Your task to perform on an android device: Clear the cart on ebay. Add "razer blade" to the cart on ebay Image 0: 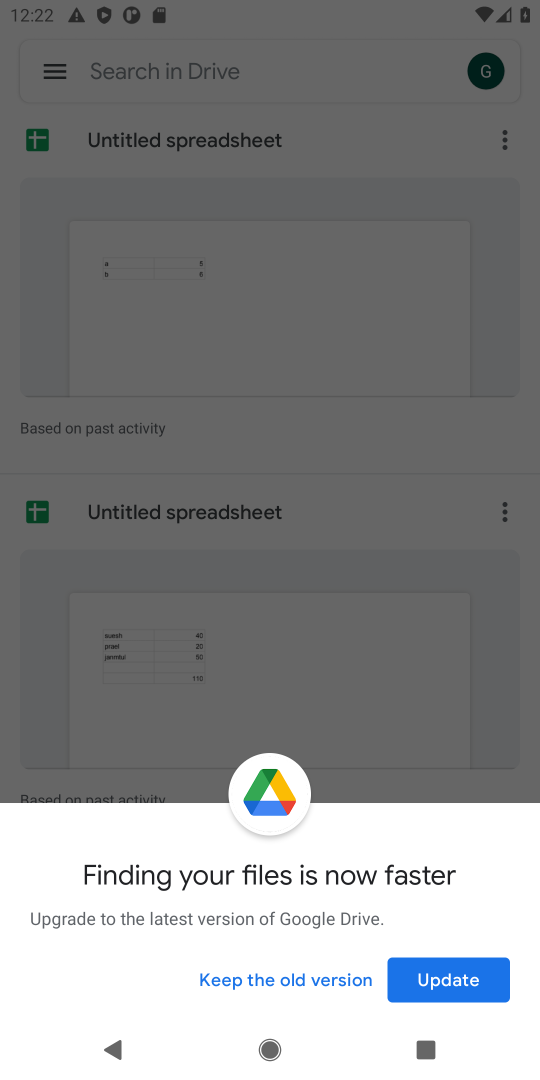
Step 0: press home button
Your task to perform on an android device: Clear the cart on ebay. Add "razer blade" to the cart on ebay Image 1: 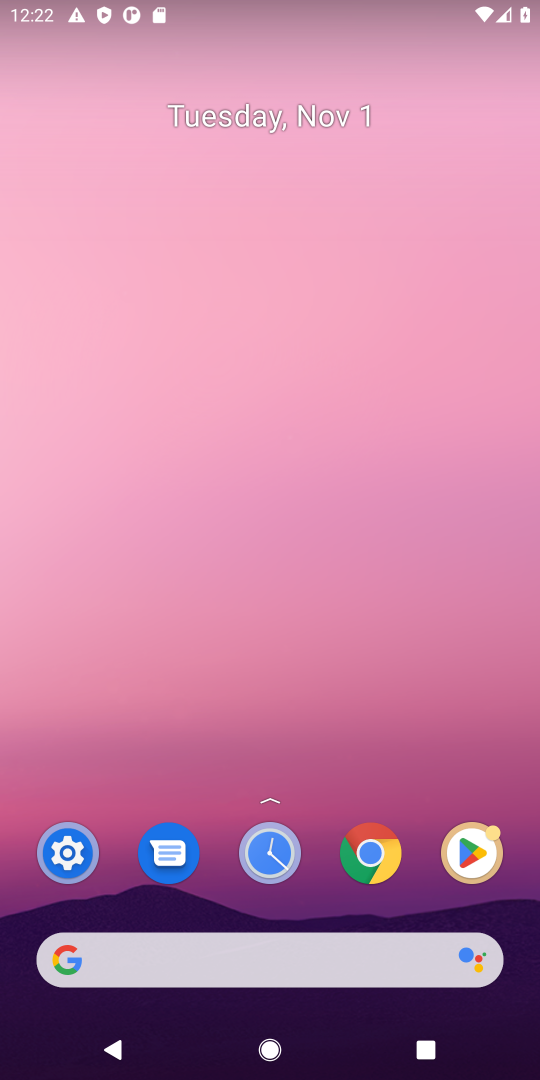
Step 1: click (216, 951)
Your task to perform on an android device: Clear the cart on ebay. Add "razer blade" to the cart on ebay Image 2: 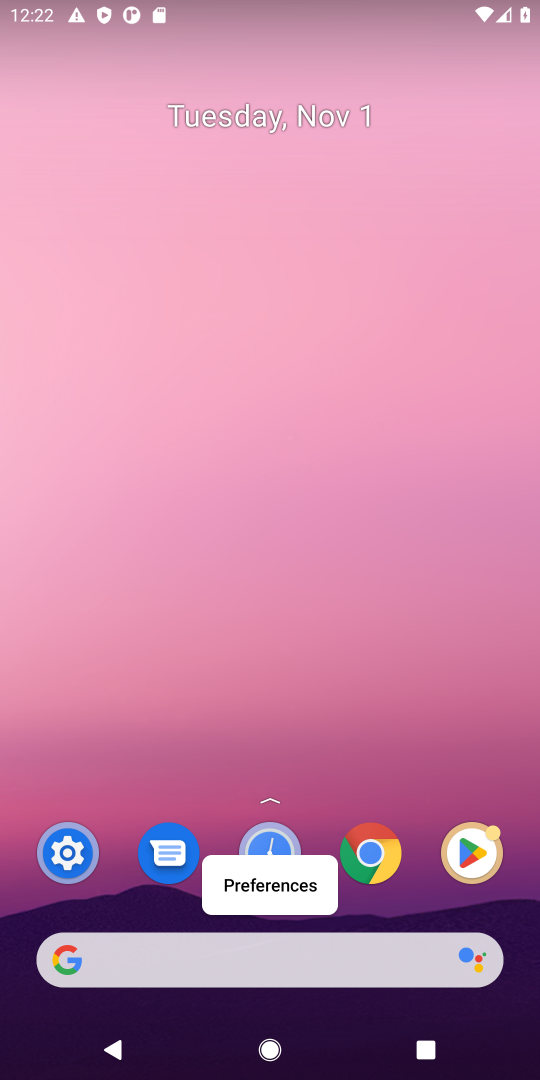
Step 2: click (216, 951)
Your task to perform on an android device: Clear the cart on ebay. Add "razer blade" to the cart on ebay Image 3: 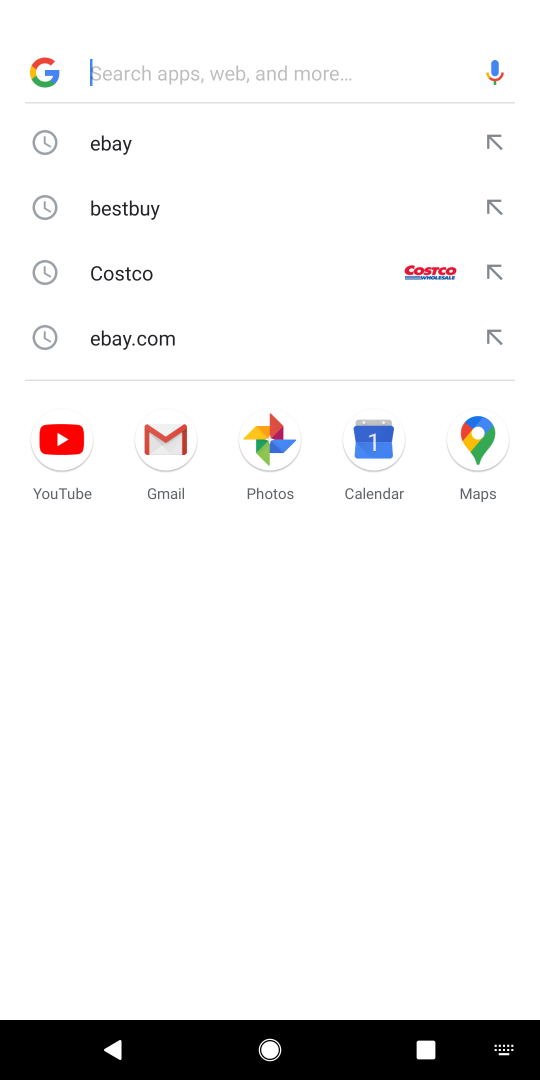
Step 3: click (111, 156)
Your task to perform on an android device: Clear the cart on ebay. Add "razer blade" to the cart on ebay Image 4: 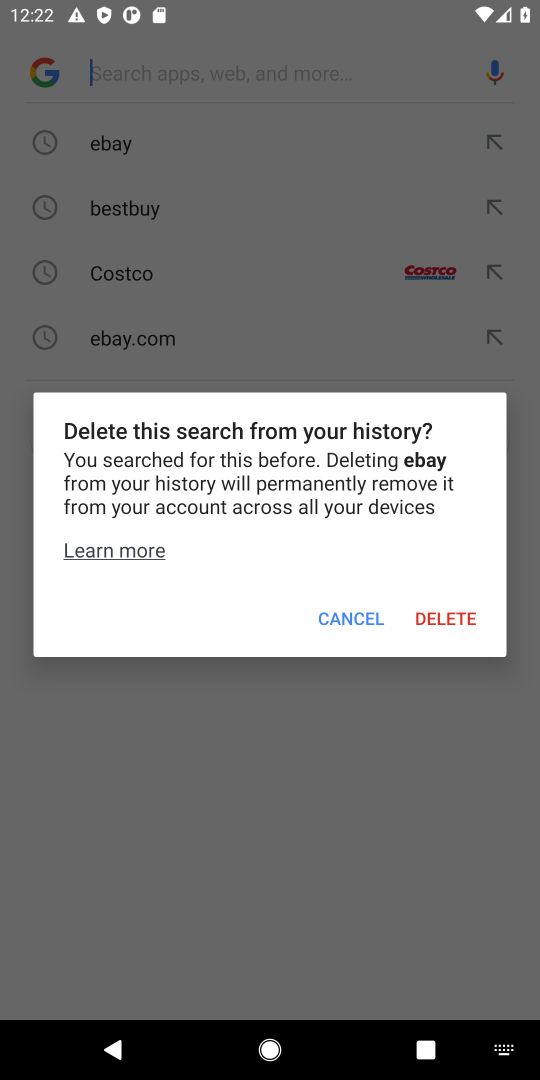
Step 4: click (359, 604)
Your task to perform on an android device: Clear the cart on ebay. Add "razer blade" to the cart on ebay Image 5: 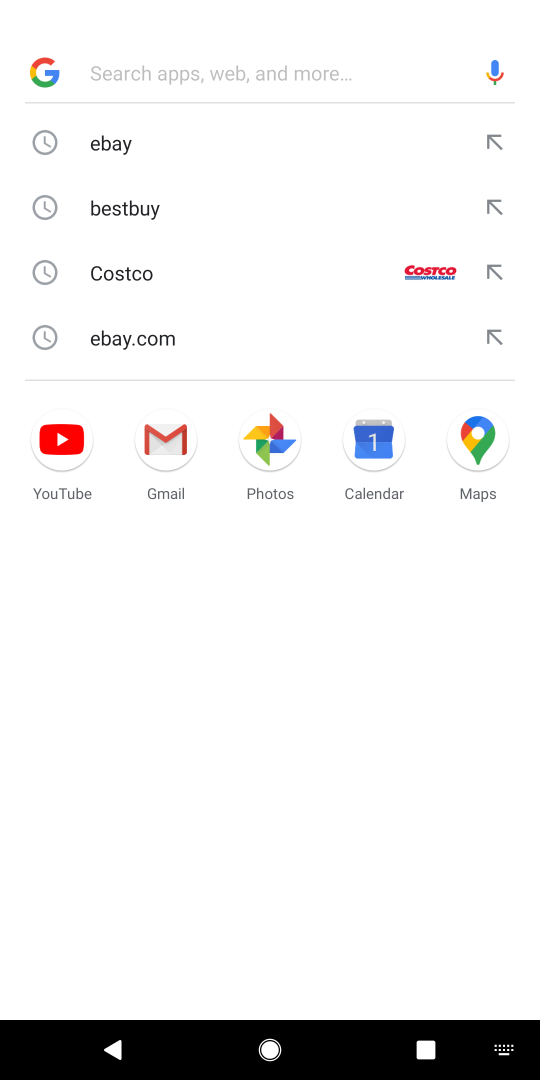
Step 5: type "ebay"
Your task to perform on an android device: Clear the cart on ebay. Add "razer blade" to the cart on ebay Image 6: 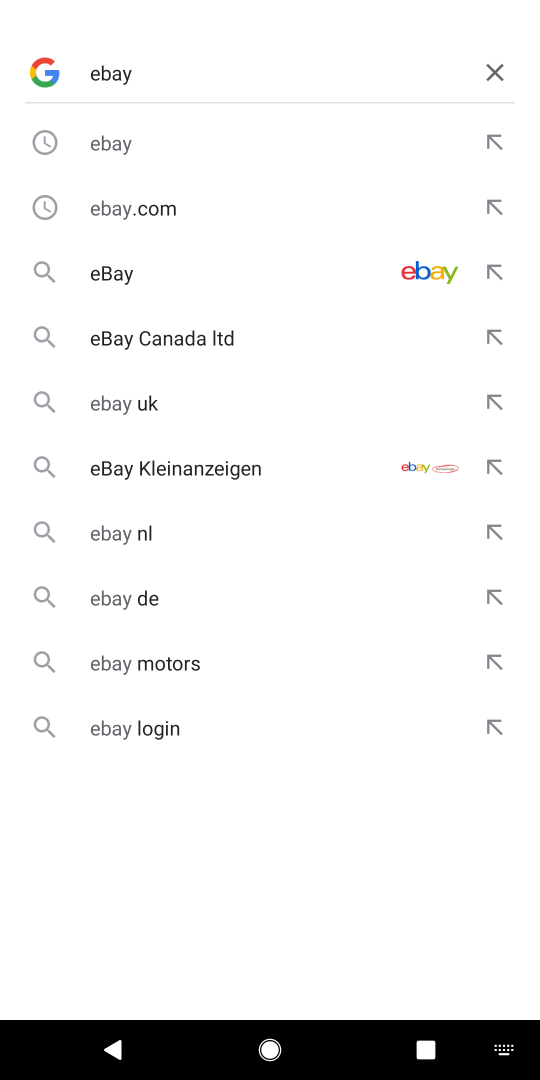
Step 6: type ""
Your task to perform on an android device: Clear the cart on ebay. Add "razer blade" to the cart on ebay Image 7: 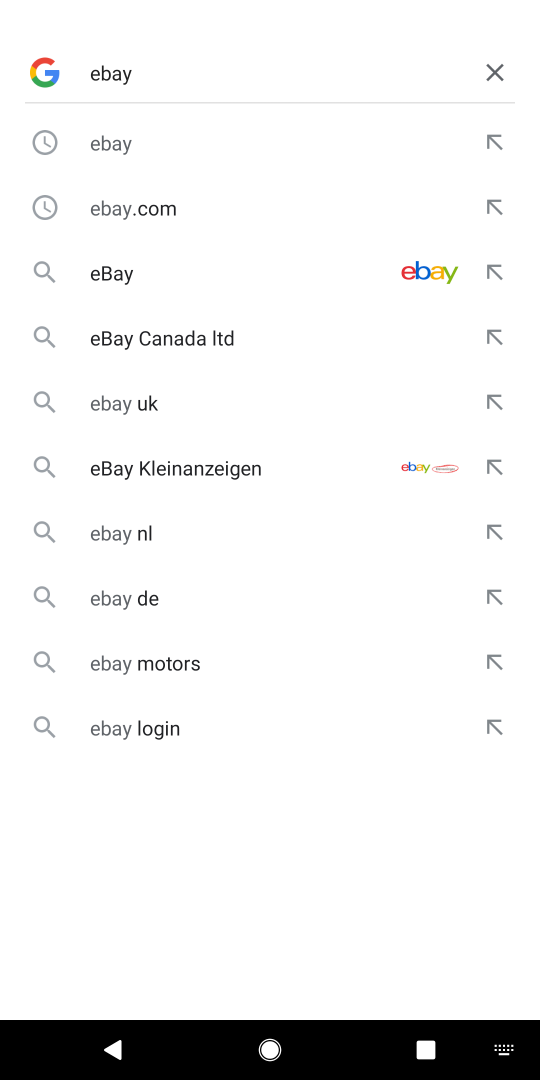
Step 7: press enter
Your task to perform on an android device: Clear the cart on ebay. Add "razer blade" to the cart on ebay Image 8: 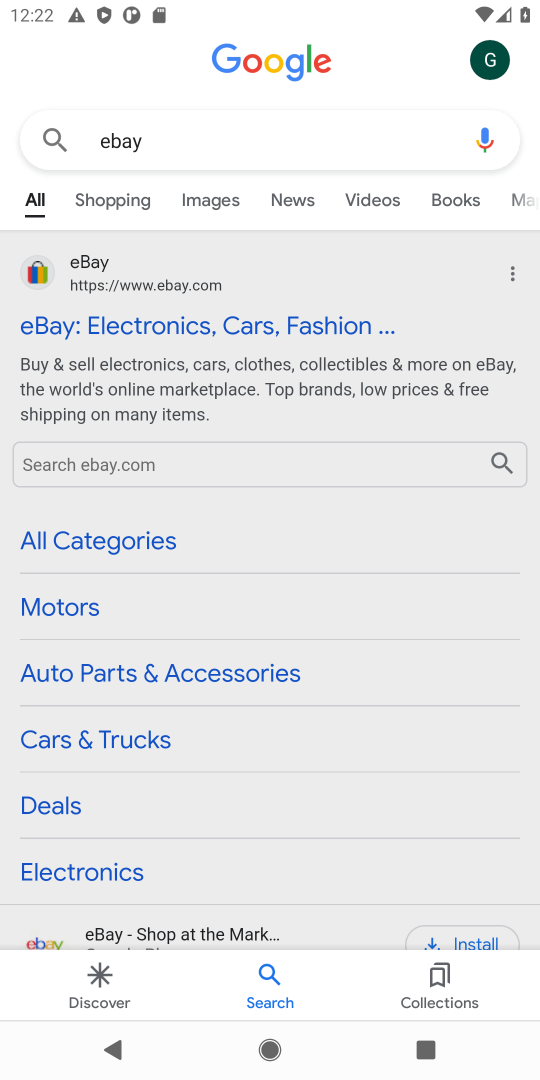
Step 8: click (207, 328)
Your task to perform on an android device: Clear the cart on ebay. Add "razer blade" to the cart on ebay Image 9: 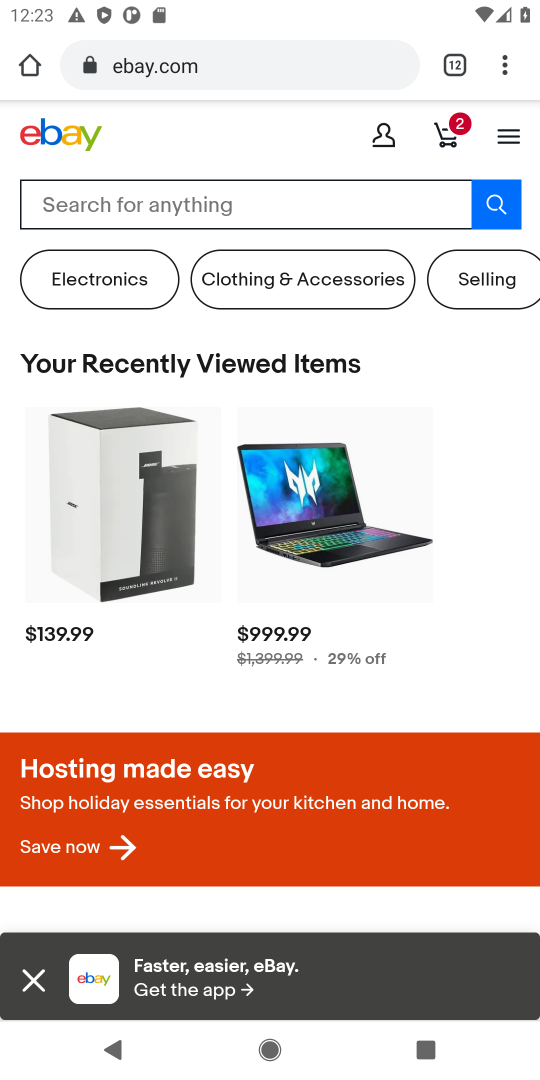
Step 9: click (128, 208)
Your task to perform on an android device: Clear the cart on ebay. Add "razer blade" to the cart on ebay Image 10: 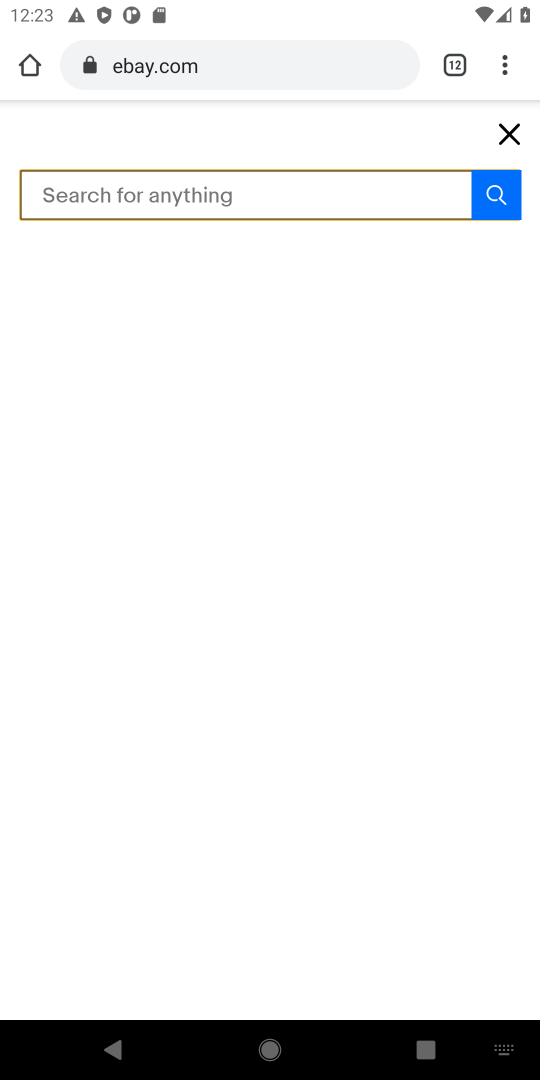
Step 10: type "razer blade"
Your task to perform on an android device: Clear the cart on ebay. Add "razer blade" to the cart on ebay Image 11: 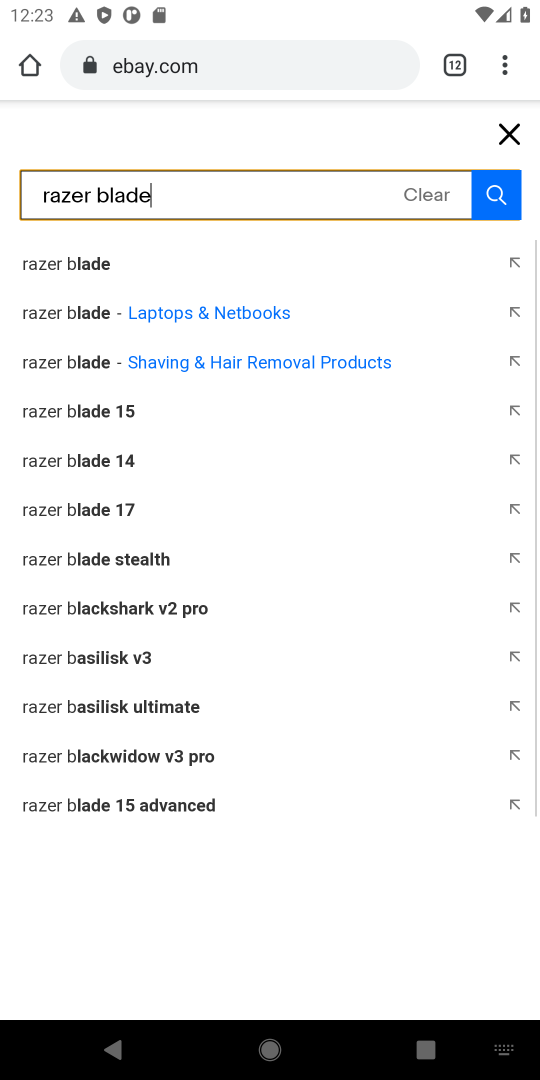
Step 11: type ""
Your task to perform on an android device: Clear the cart on ebay. Add "razer blade" to the cart on ebay Image 12: 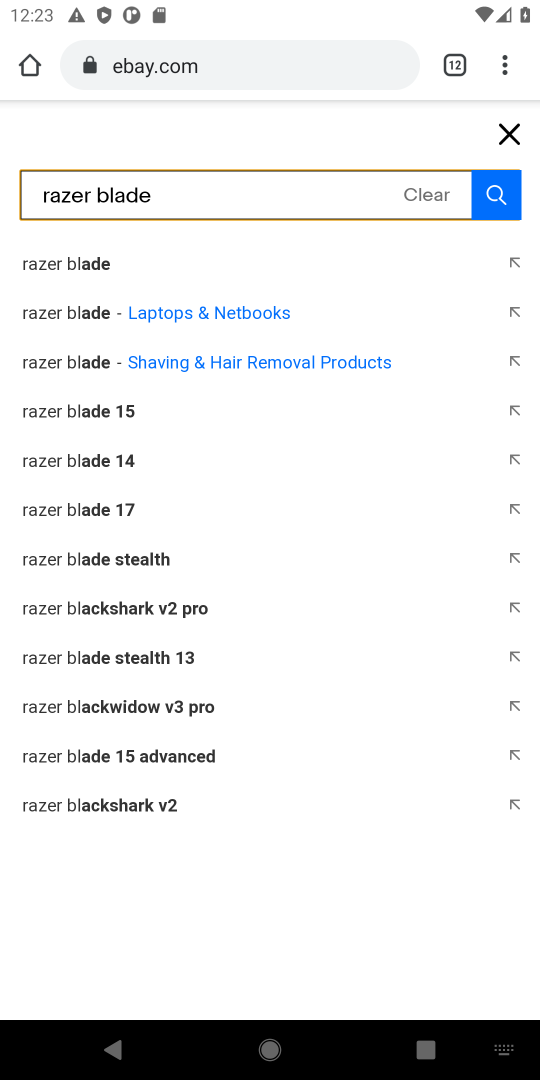
Step 12: click (501, 200)
Your task to perform on an android device: Clear the cart on ebay. Add "razer blade" to the cart on ebay Image 13: 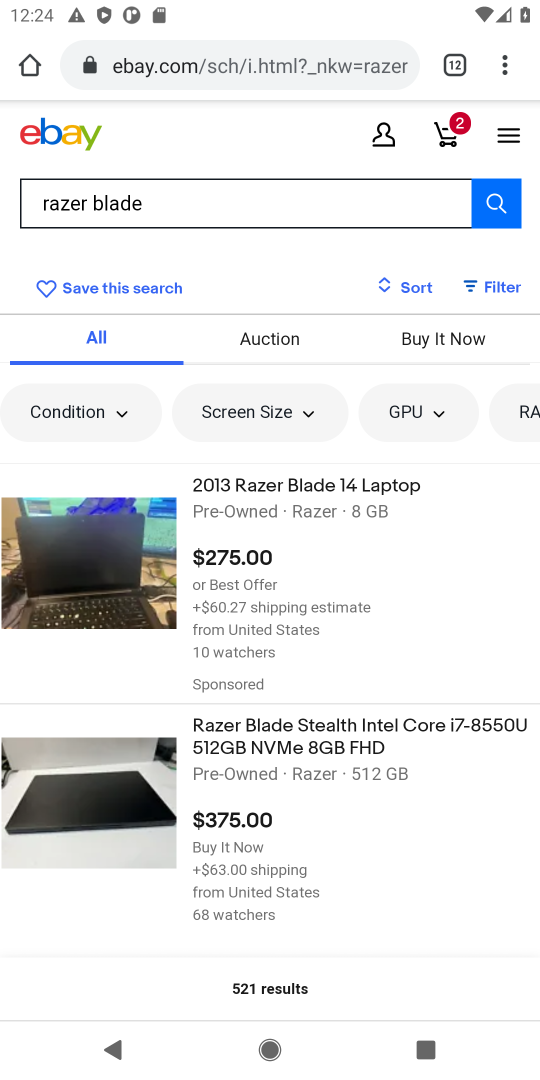
Step 13: click (300, 494)
Your task to perform on an android device: Clear the cart on ebay. Add "razer blade" to the cart on ebay Image 14: 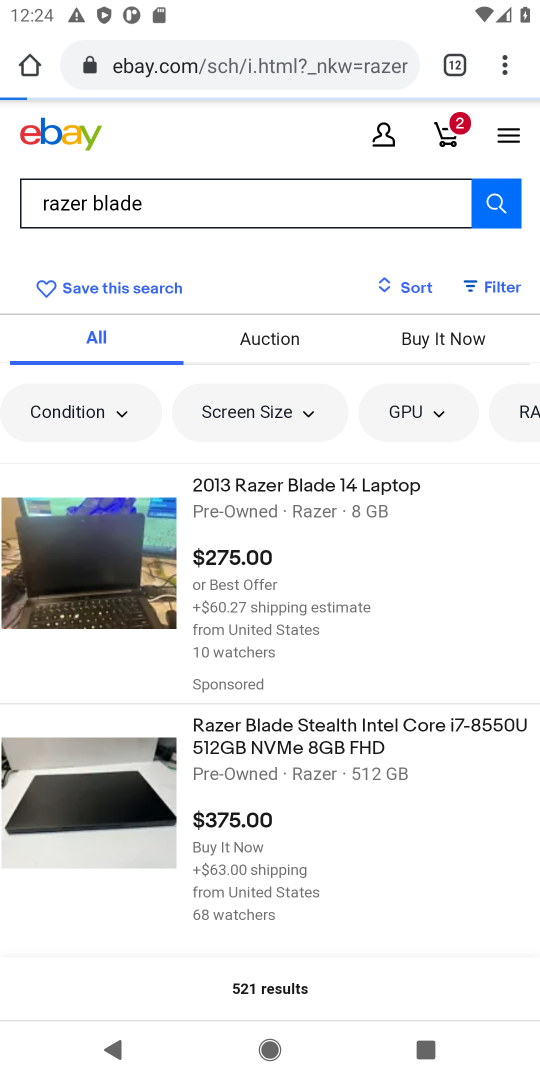
Step 14: click (448, 127)
Your task to perform on an android device: Clear the cart on ebay. Add "razer blade" to the cart on ebay Image 15: 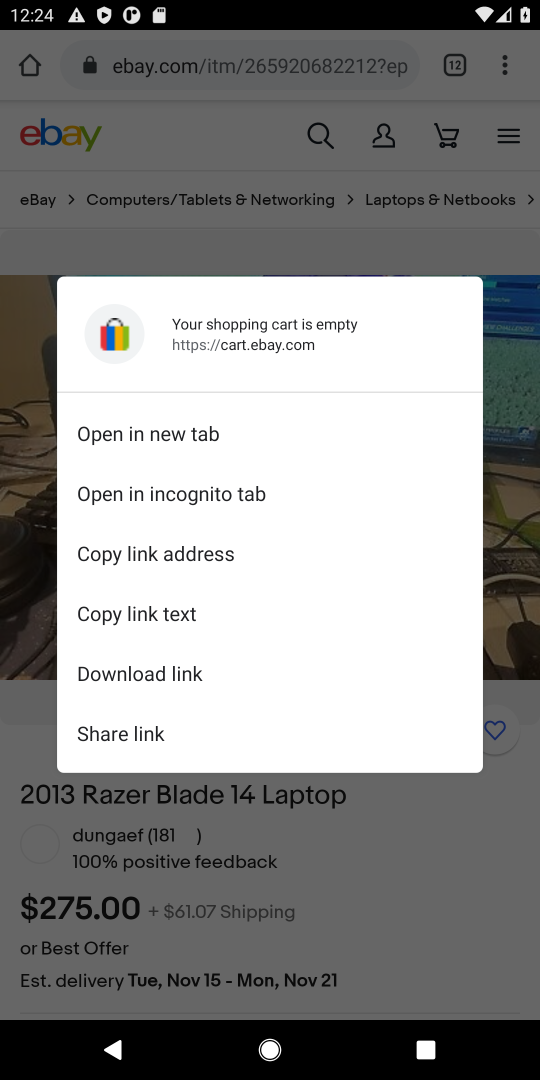
Step 15: click (446, 130)
Your task to perform on an android device: Clear the cart on ebay. Add "razer blade" to the cart on ebay Image 16: 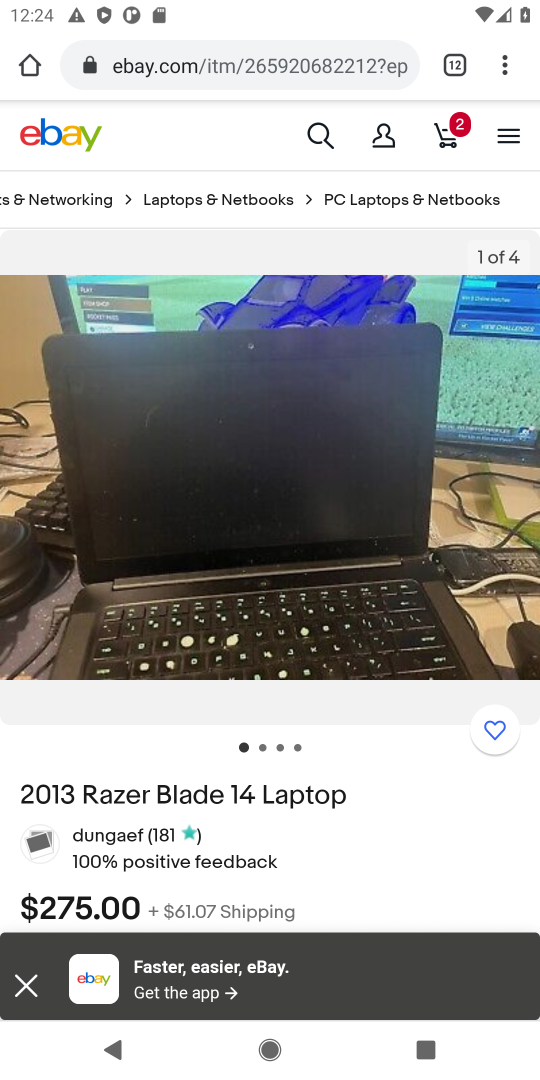
Step 16: task complete